Your task to perform on an android device: check the backup settings in the google photos Image 0: 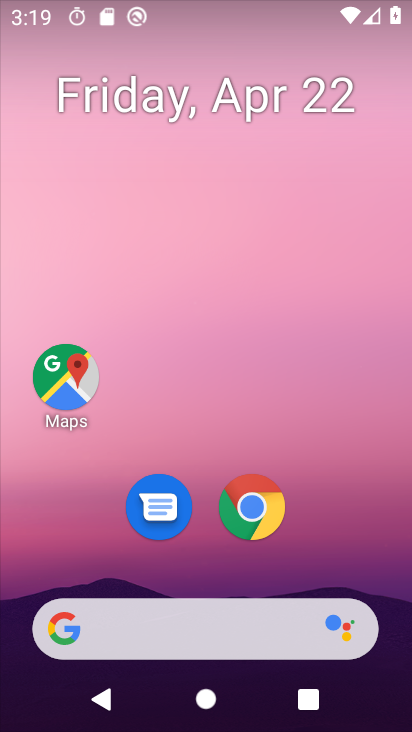
Step 0: drag from (309, 543) to (351, 52)
Your task to perform on an android device: check the backup settings in the google photos Image 1: 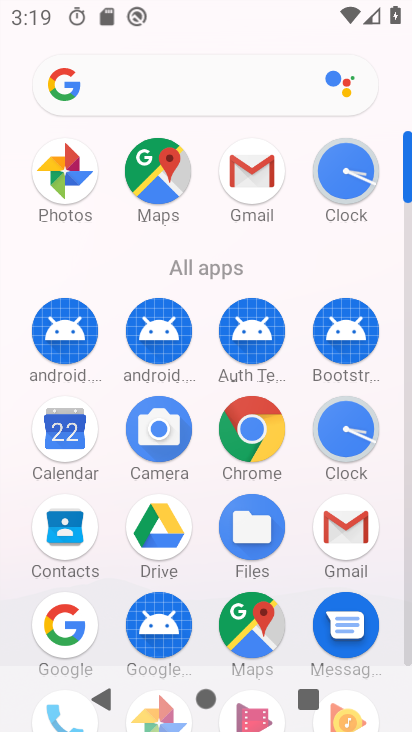
Step 1: click (72, 159)
Your task to perform on an android device: check the backup settings in the google photos Image 2: 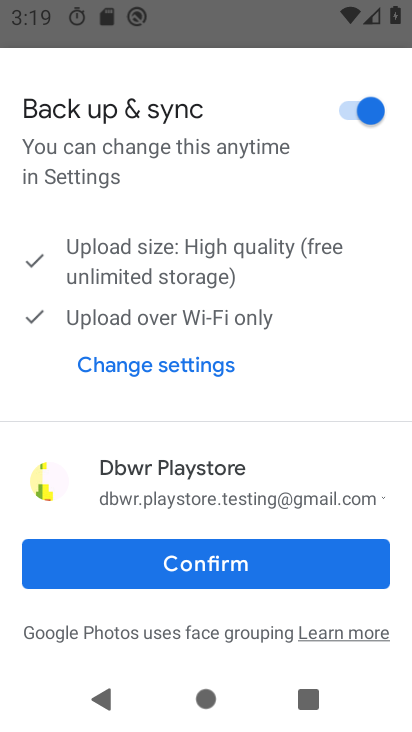
Step 2: click (204, 583)
Your task to perform on an android device: check the backup settings in the google photos Image 3: 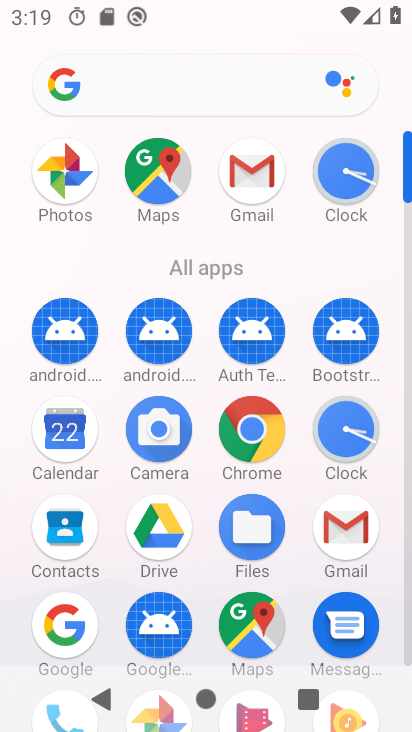
Step 3: click (73, 184)
Your task to perform on an android device: check the backup settings in the google photos Image 4: 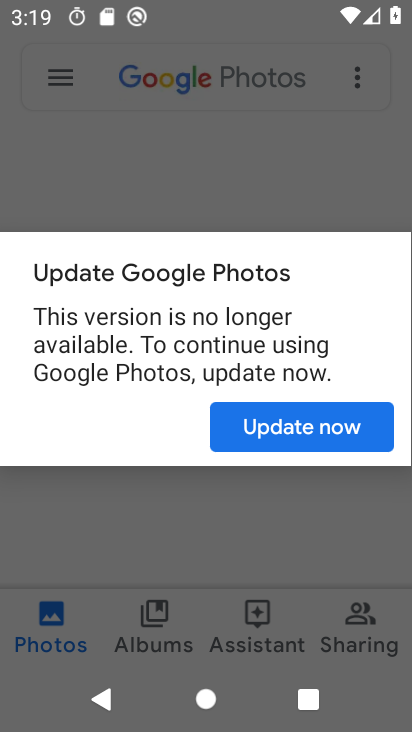
Step 4: click (295, 422)
Your task to perform on an android device: check the backup settings in the google photos Image 5: 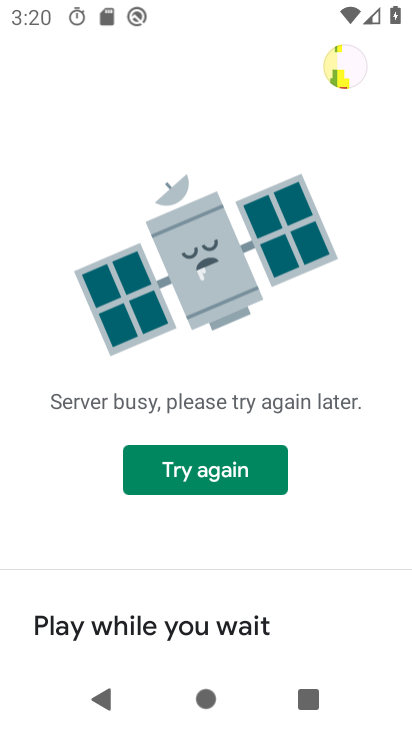
Step 5: click (224, 478)
Your task to perform on an android device: check the backup settings in the google photos Image 6: 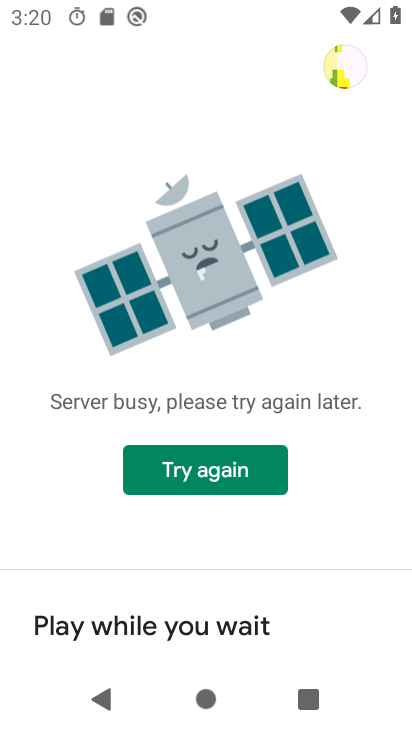
Step 6: click (224, 480)
Your task to perform on an android device: check the backup settings in the google photos Image 7: 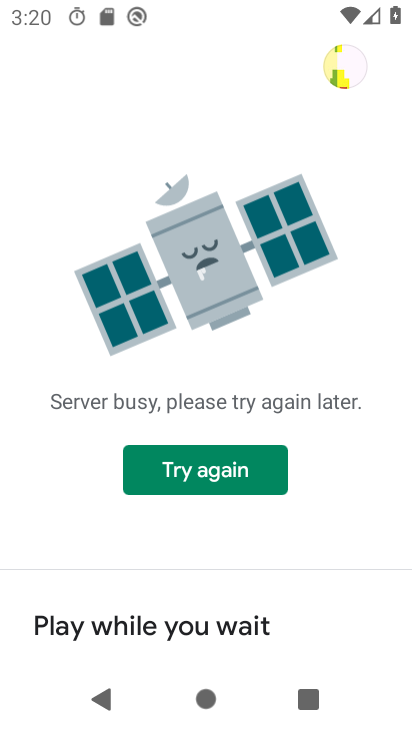
Step 7: task complete